Your task to perform on an android device: make emails show in primary in the gmail app Image 0: 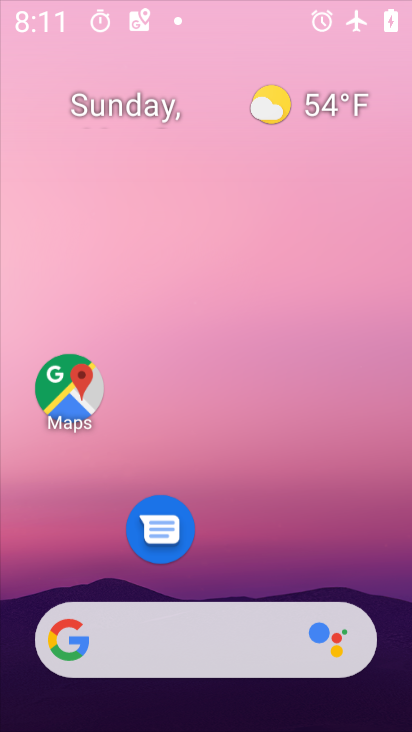
Step 0: click (409, 56)
Your task to perform on an android device: make emails show in primary in the gmail app Image 1: 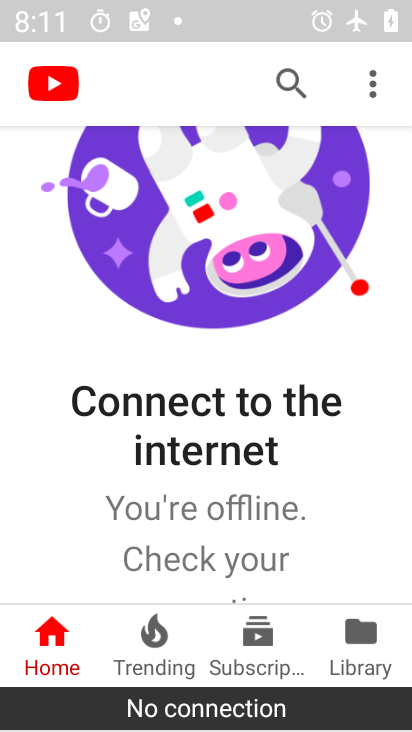
Step 1: press home button
Your task to perform on an android device: make emails show in primary in the gmail app Image 2: 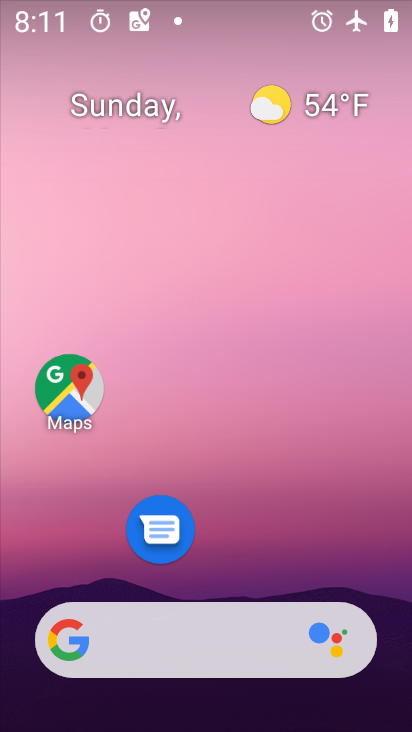
Step 2: drag from (256, 562) to (334, 23)
Your task to perform on an android device: make emails show in primary in the gmail app Image 3: 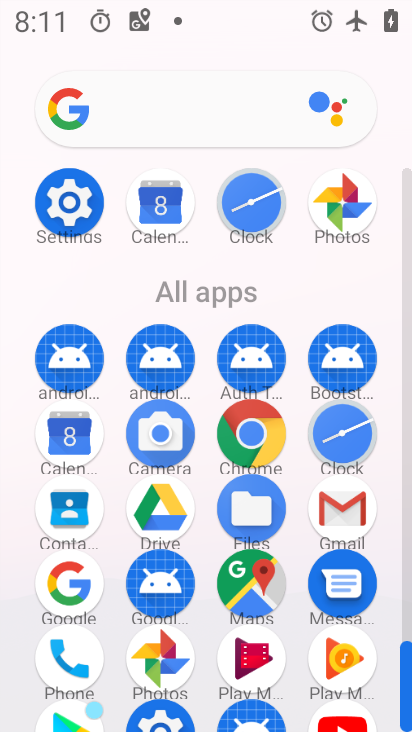
Step 3: click (330, 506)
Your task to perform on an android device: make emails show in primary in the gmail app Image 4: 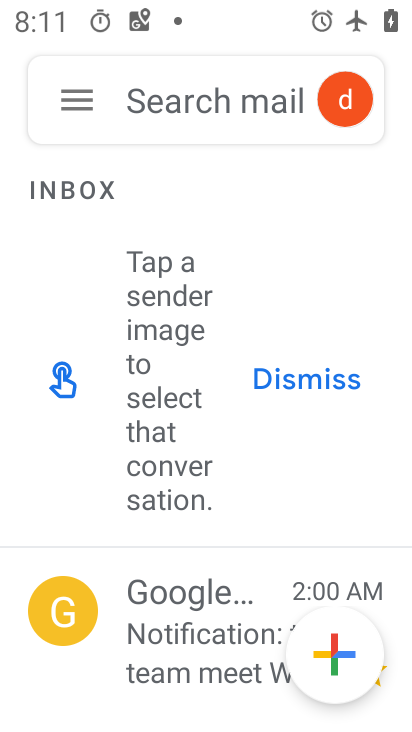
Step 4: click (84, 124)
Your task to perform on an android device: make emails show in primary in the gmail app Image 5: 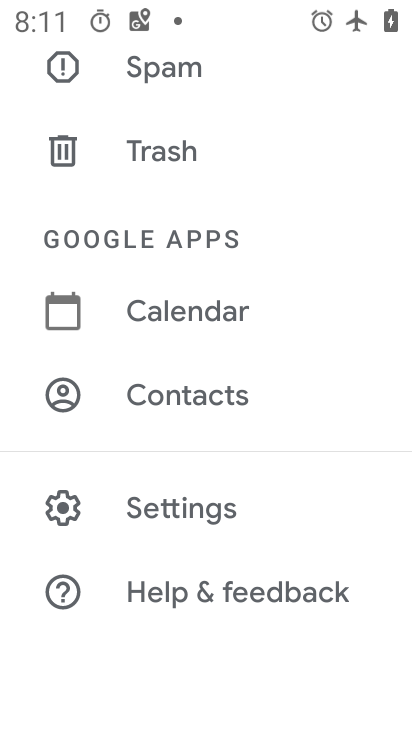
Step 5: click (177, 510)
Your task to perform on an android device: make emails show in primary in the gmail app Image 6: 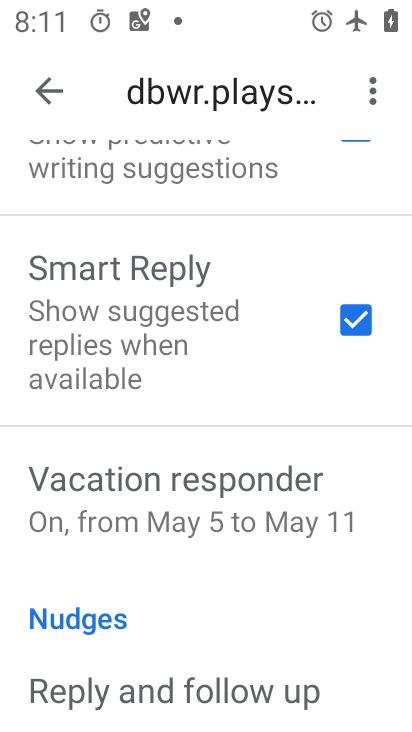
Step 6: drag from (121, 189) to (142, 725)
Your task to perform on an android device: make emails show in primary in the gmail app Image 7: 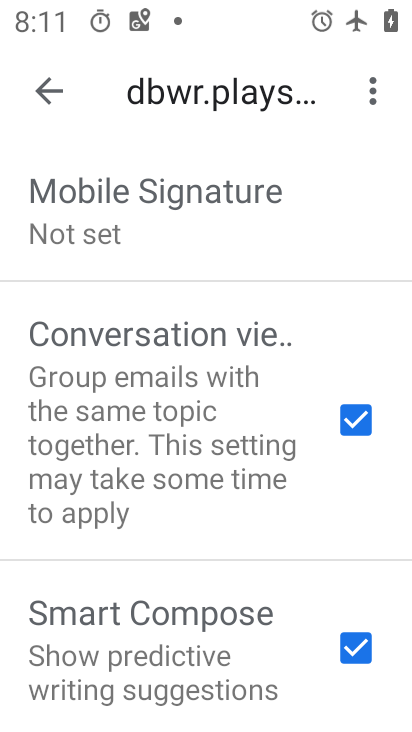
Step 7: drag from (212, 326) to (203, 637)
Your task to perform on an android device: make emails show in primary in the gmail app Image 8: 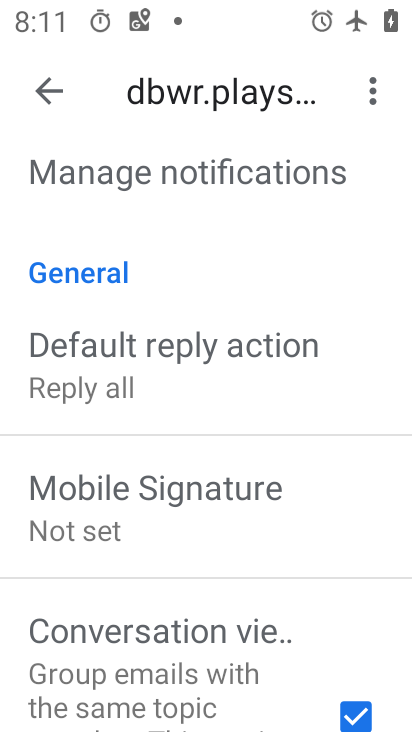
Step 8: drag from (199, 349) to (171, 730)
Your task to perform on an android device: make emails show in primary in the gmail app Image 9: 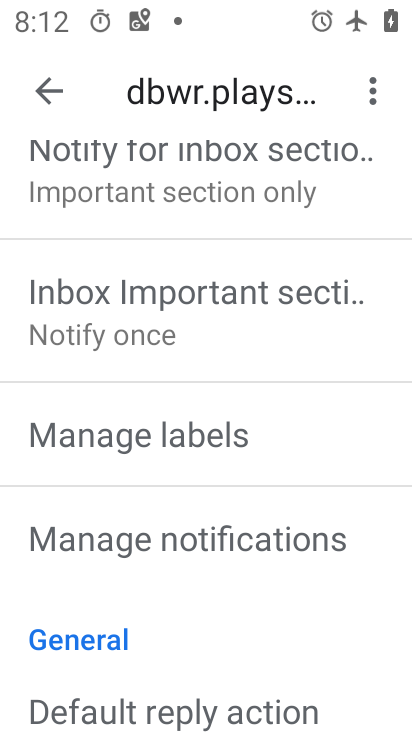
Step 9: drag from (216, 354) to (210, 717)
Your task to perform on an android device: make emails show in primary in the gmail app Image 10: 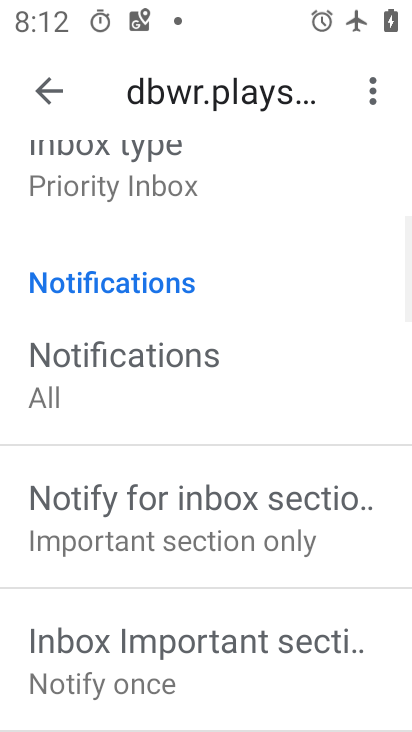
Step 10: drag from (211, 254) to (225, 587)
Your task to perform on an android device: make emails show in primary in the gmail app Image 11: 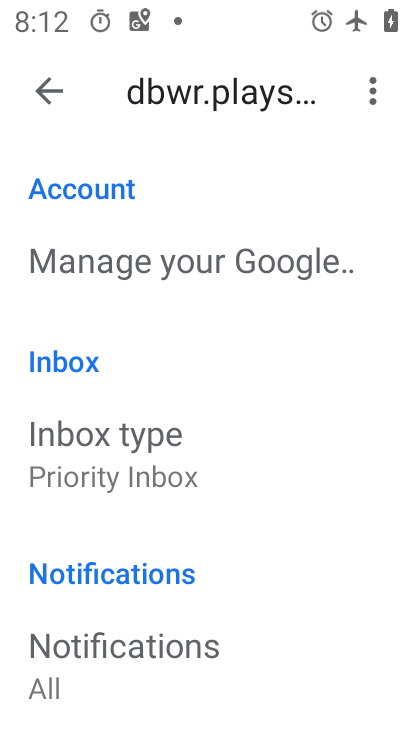
Step 11: click (139, 445)
Your task to perform on an android device: make emails show in primary in the gmail app Image 12: 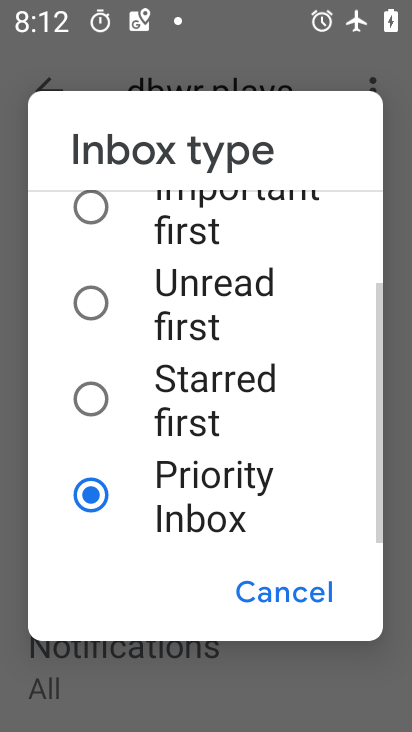
Step 12: drag from (190, 275) to (190, 685)
Your task to perform on an android device: make emails show in primary in the gmail app Image 13: 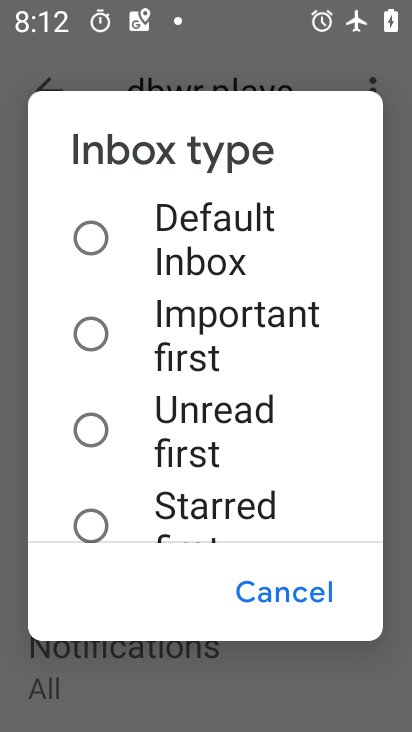
Step 13: click (94, 235)
Your task to perform on an android device: make emails show in primary in the gmail app Image 14: 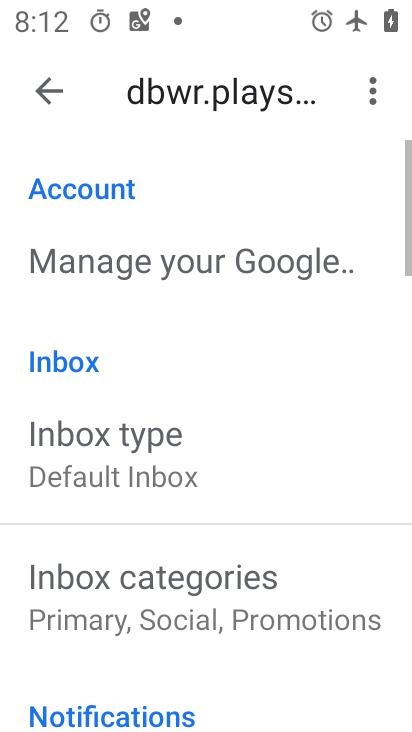
Step 14: click (164, 589)
Your task to perform on an android device: make emails show in primary in the gmail app Image 15: 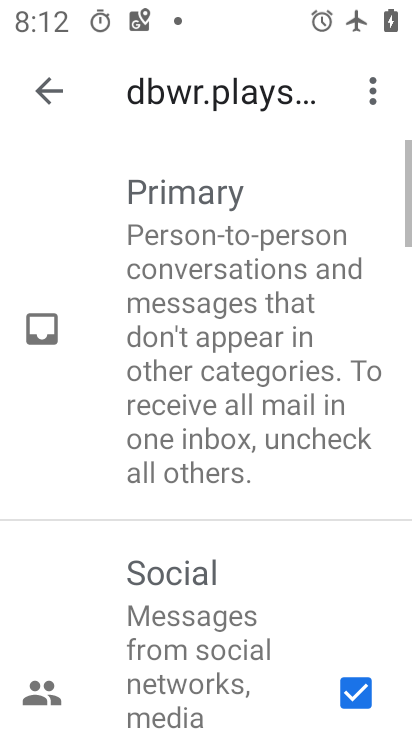
Step 15: click (331, 673)
Your task to perform on an android device: make emails show in primary in the gmail app Image 16: 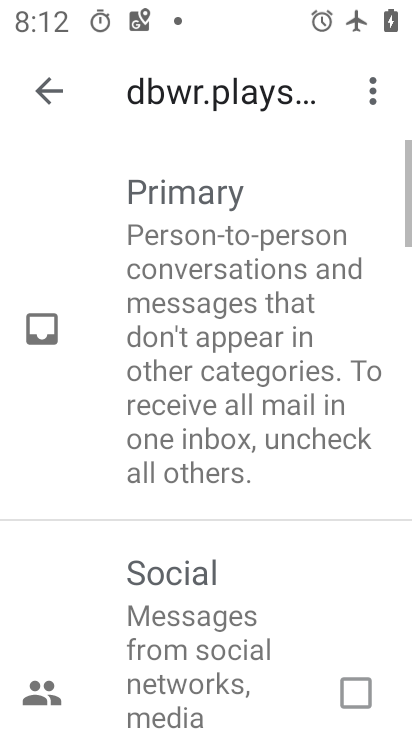
Step 16: drag from (259, 652) to (282, 153)
Your task to perform on an android device: make emails show in primary in the gmail app Image 17: 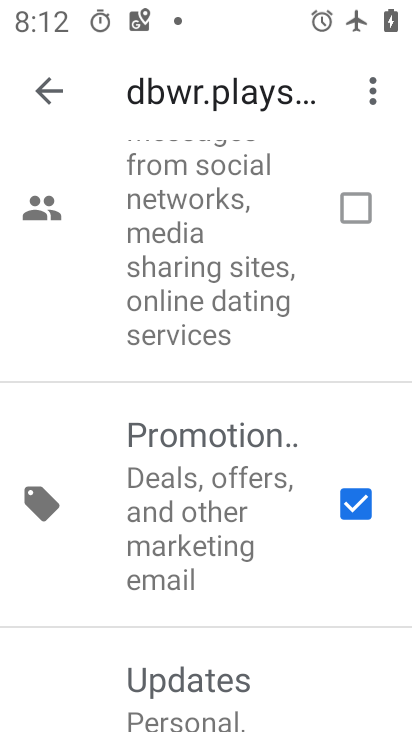
Step 17: click (339, 508)
Your task to perform on an android device: make emails show in primary in the gmail app Image 18: 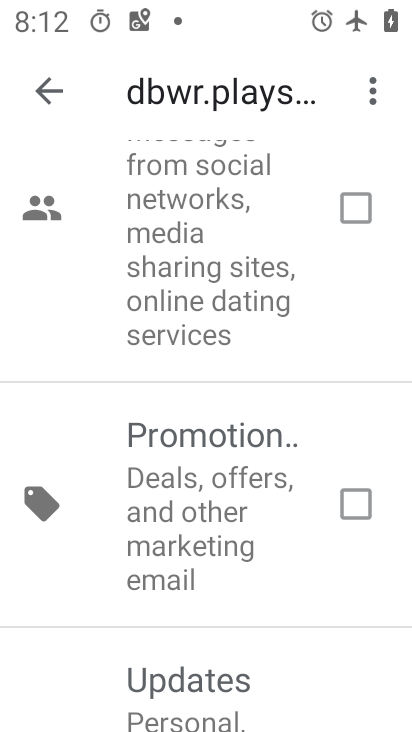
Step 18: task complete